Your task to perform on an android device: Search for Italian restaurants on Maps Image 0: 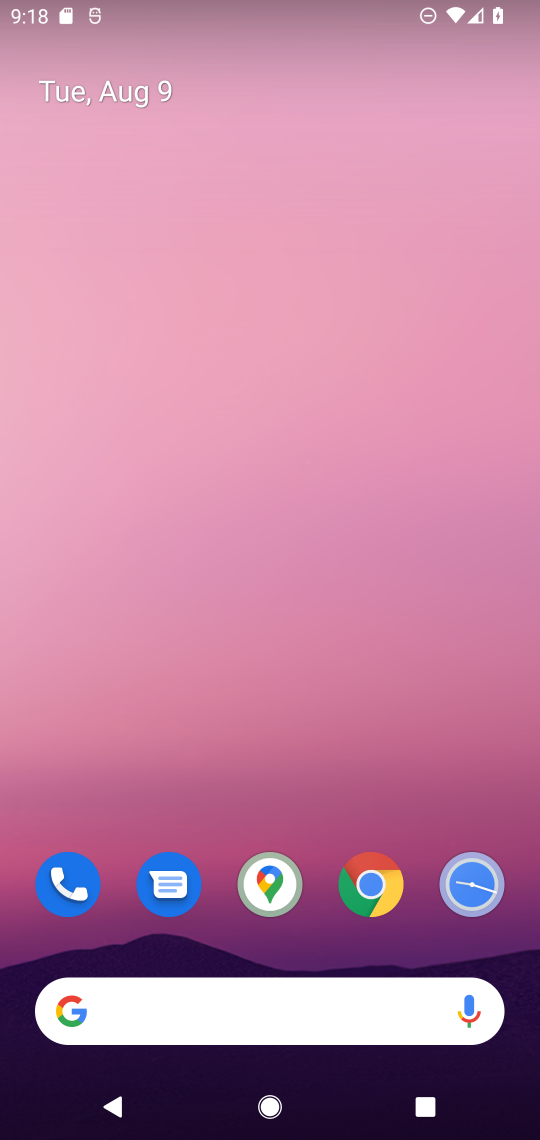
Step 0: drag from (166, 979) to (330, 300)
Your task to perform on an android device: Search for Italian restaurants on Maps Image 1: 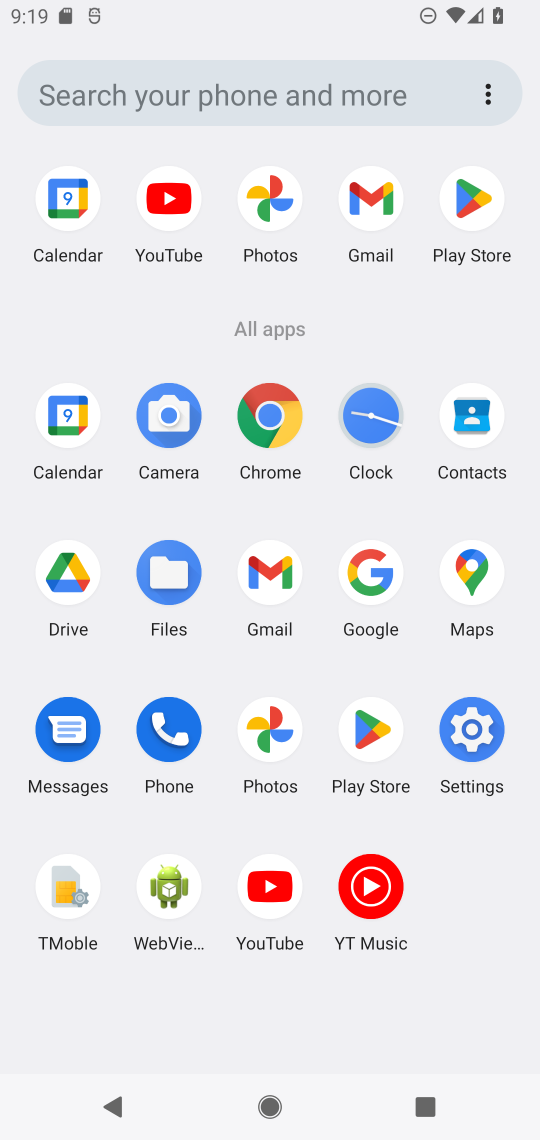
Step 1: click (447, 578)
Your task to perform on an android device: Search for Italian restaurants on Maps Image 2: 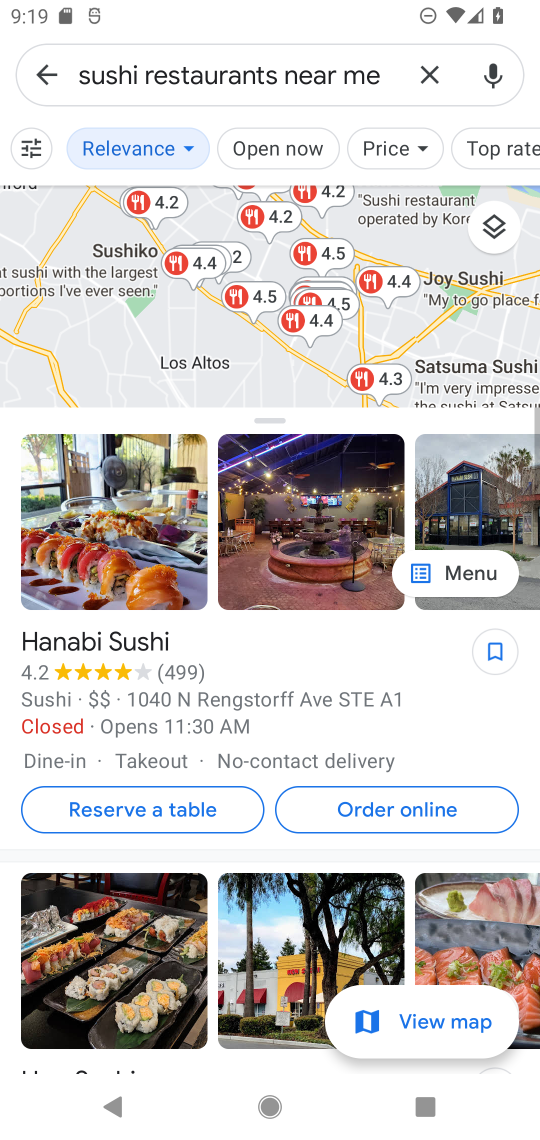
Step 2: click (436, 69)
Your task to perform on an android device: Search for Italian restaurants on Maps Image 3: 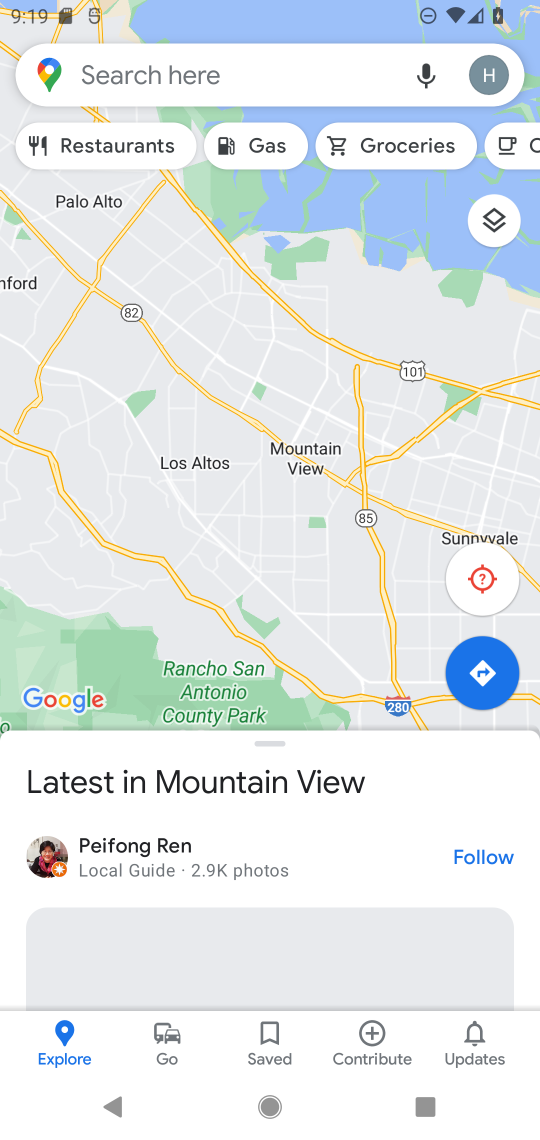
Step 3: click (185, 71)
Your task to perform on an android device: Search for Italian restaurants on Maps Image 4: 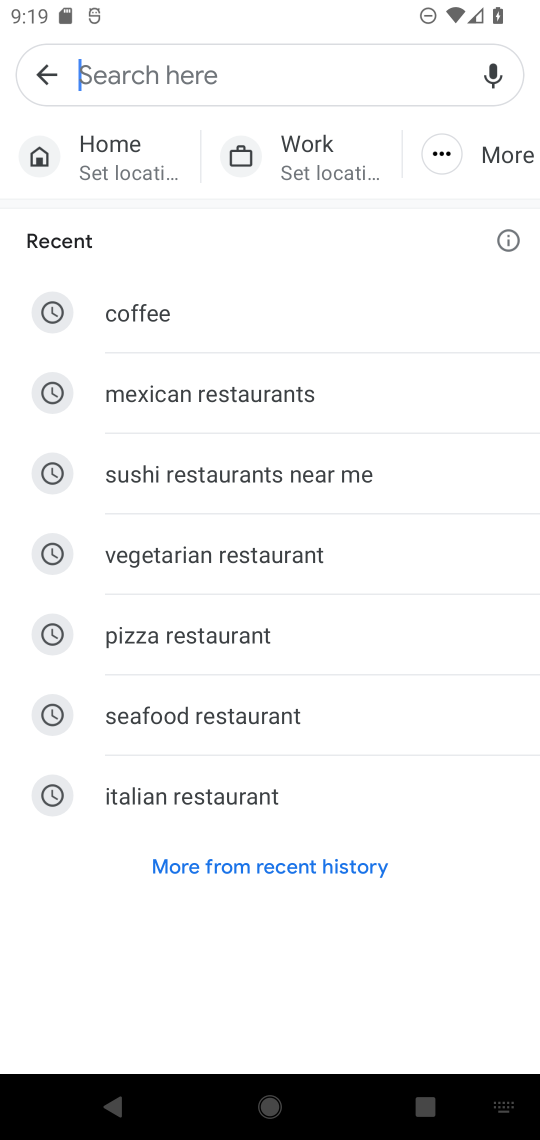
Step 4: click (216, 784)
Your task to perform on an android device: Search for Italian restaurants on Maps Image 5: 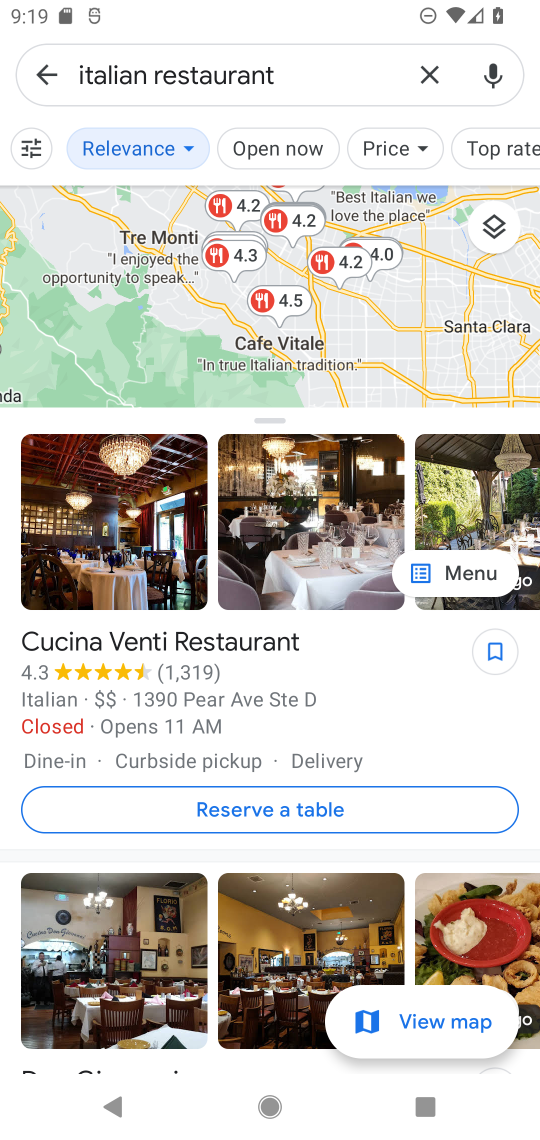
Step 5: task complete